Your task to perform on an android device: empty trash in google photos Image 0: 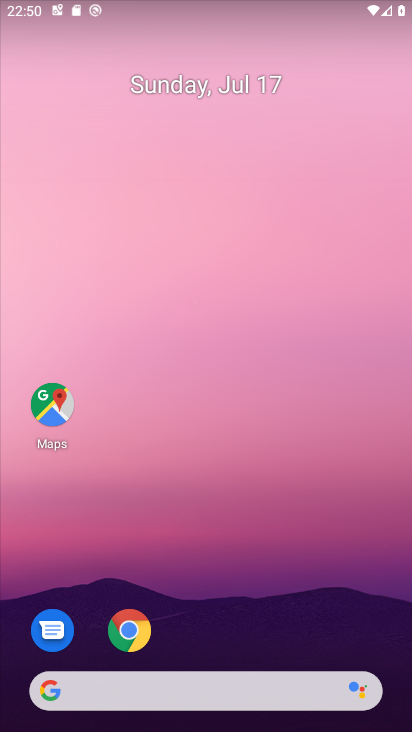
Step 0: drag from (198, 641) to (195, 1)
Your task to perform on an android device: empty trash in google photos Image 1: 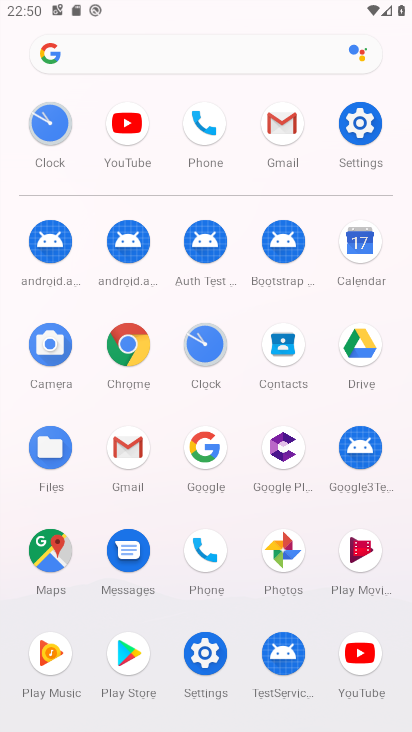
Step 1: click (284, 556)
Your task to perform on an android device: empty trash in google photos Image 2: 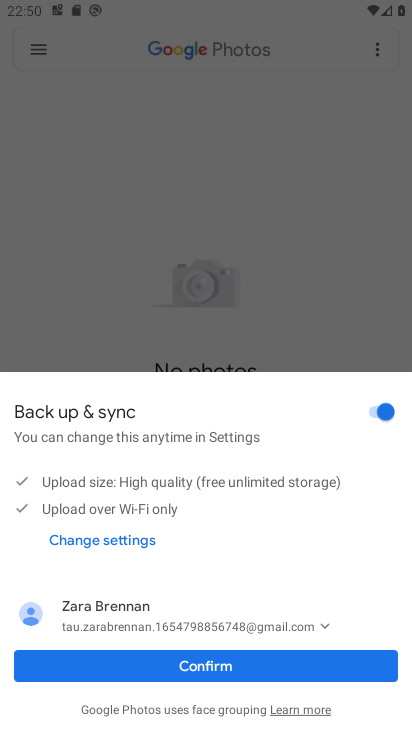
Step 2: click (286, 668)
Your task to perform on an android device: empty trash in google photos Image 3: 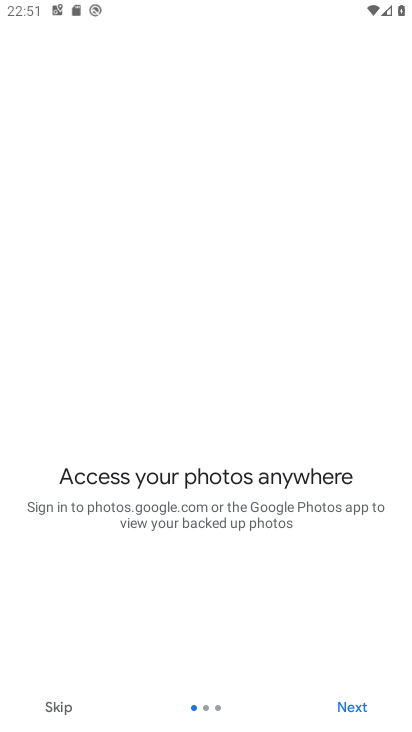
Step 3: click (65, 710)
Your task to perform on an android device: empty trash in google photos Image 4: 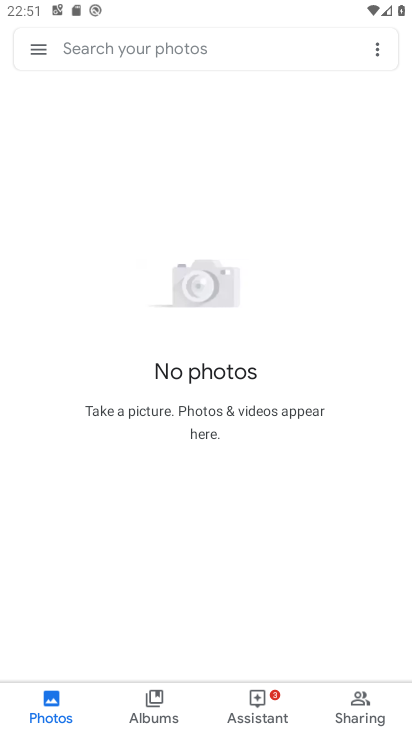
Step 4: click (30, 45)
Your task to perform on an android device: empty trash in google photos Image 5: 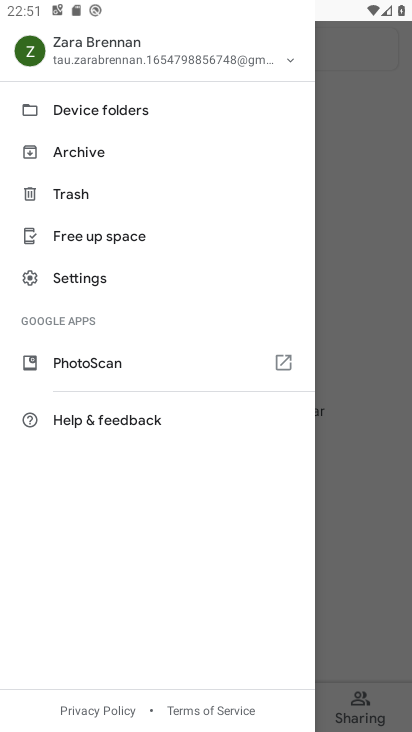
Step 5: click (76, 200)
Your task to perform on an android device: empty trash in google photos Image 6: 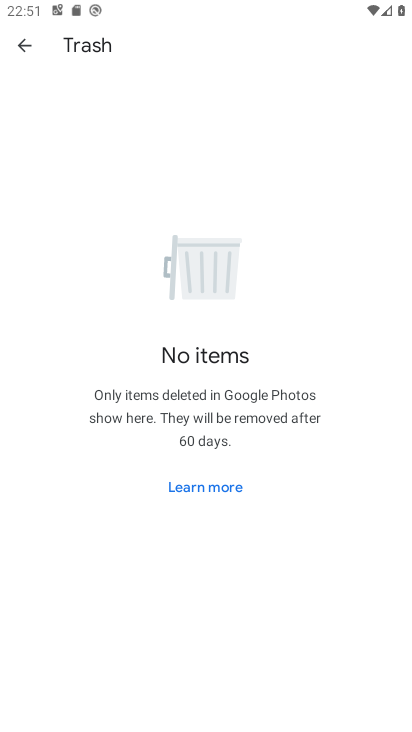
Step 6: task complete